Your task to perform on an android device: set the timer Image 0: 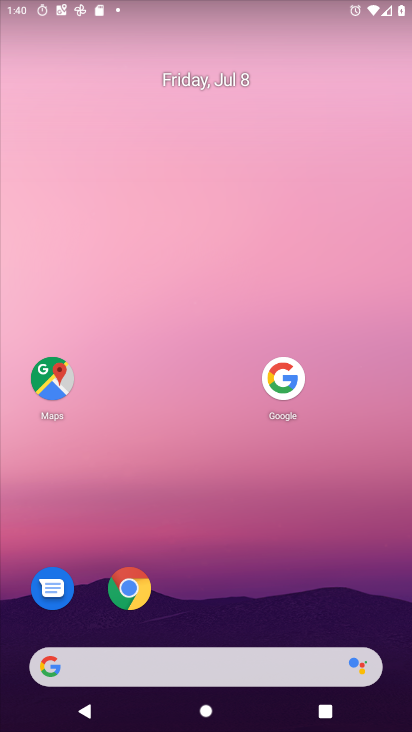
Step 0: drag from (237, 657) to (239, 110)
Your task to perform on an android device: set the timer Image 1: 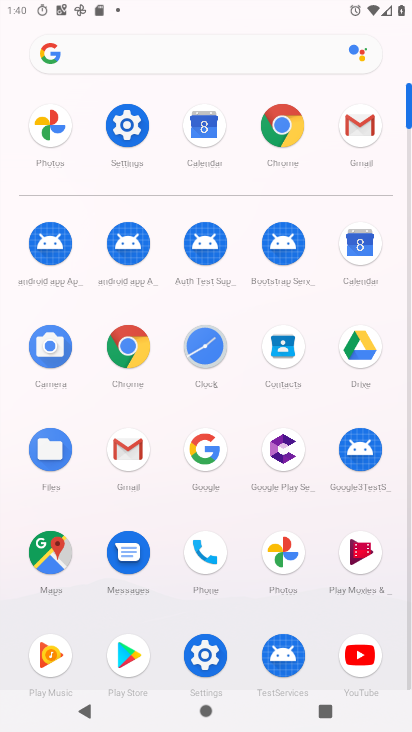
Step 1: click (205, 346)
Your task to perform on an android device: set the timer Image 2: 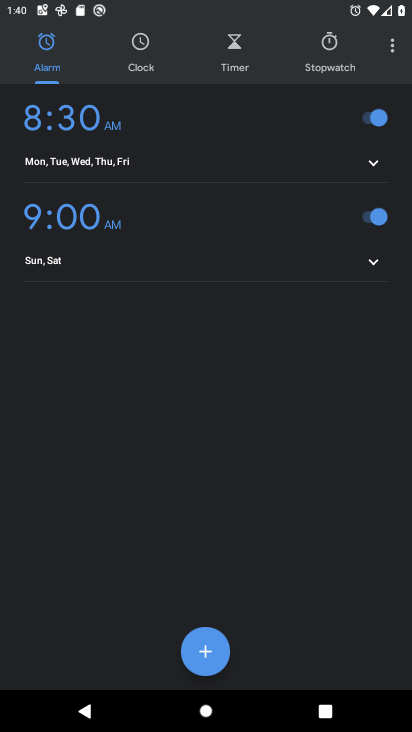
Step 2: click (253, 55)
Your task to perform on an android device: set the timer Image 3: 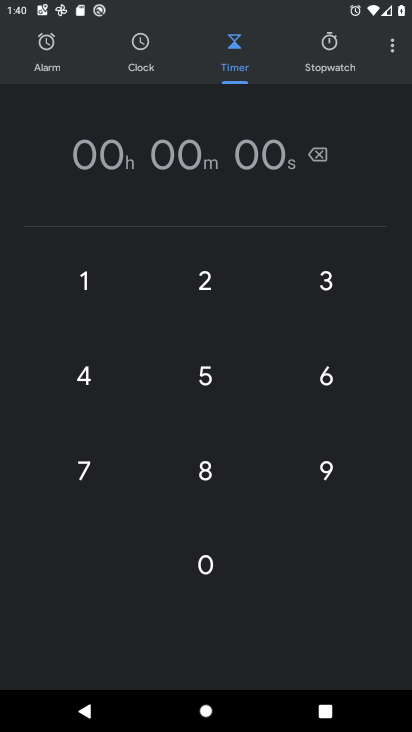
Step 3: click (203, 270)
Your task to perform on an android device: set the timer Image 4: 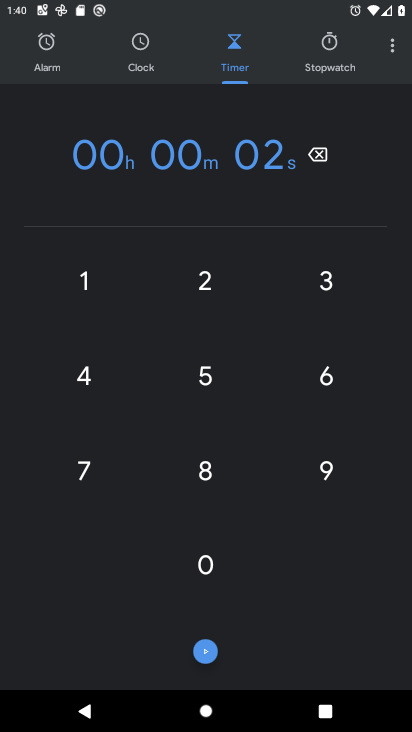
Step 4: click (334, 279)
Your task to perform on an android device: set the timer Image 5: 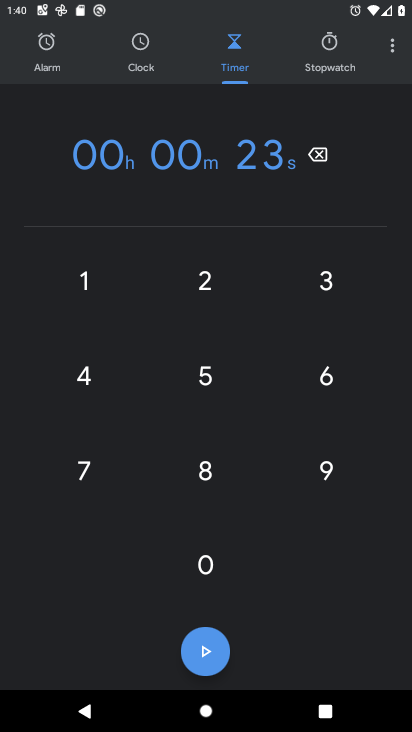
Step 5: click (208, 655)
Your task to perform on an android device: set the timer Image 6: 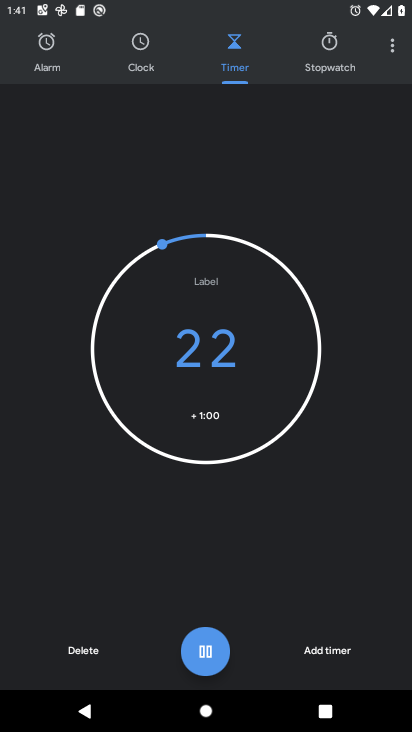
Step 6: click (207, 655)
Your task to perform on an android device: set the timer Image 7: 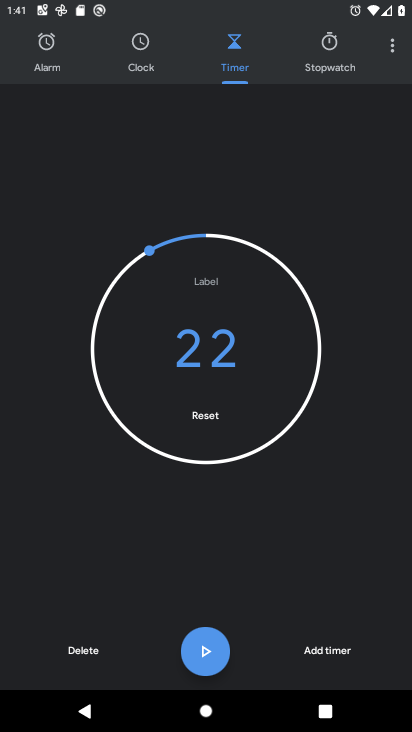
Step 7: task complete